Your task to perform on an android device: delete a single message in the gmail app Image 0: 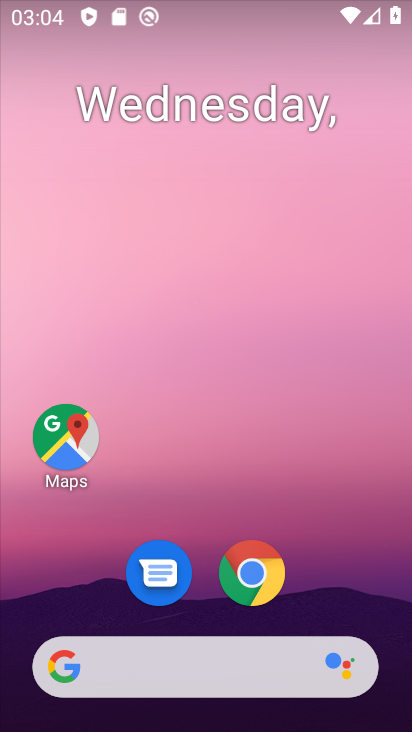
Step 0: drag from (213, 723) to (217, 170)
Your task to perform on an android device: delete a single message in the gmail app Image 1: 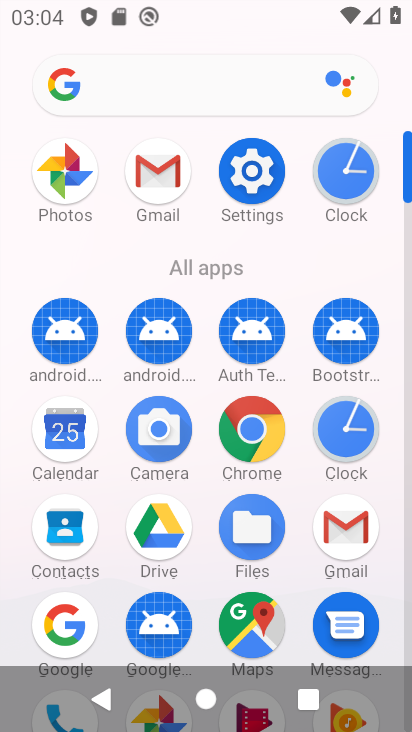
Step 1: click (350, 512)
Your task to perform on an android device: delete a single message in the gmail app Image 2: 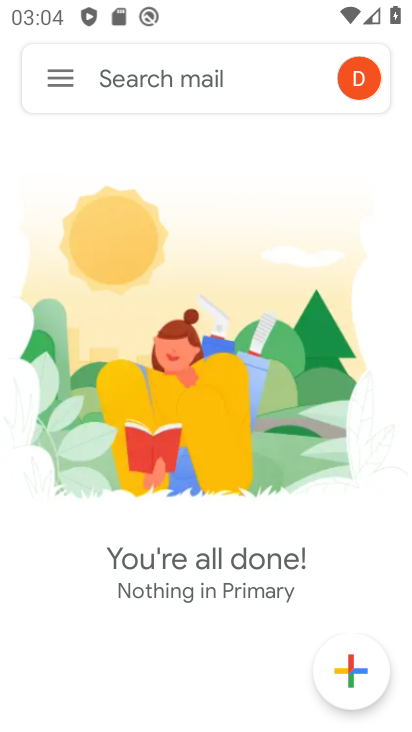
Step 2: task complete